Your task to perform on an android device: toggle sleep mode Image 0: 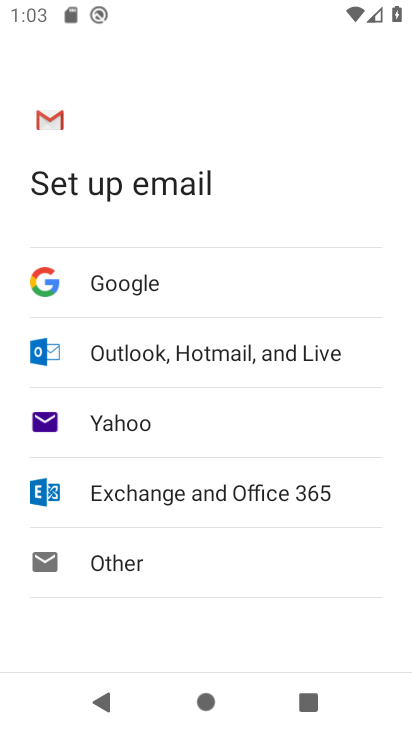
Step 0: press home button
Your task to perform on an android device: toggle sleep mode Image 1: 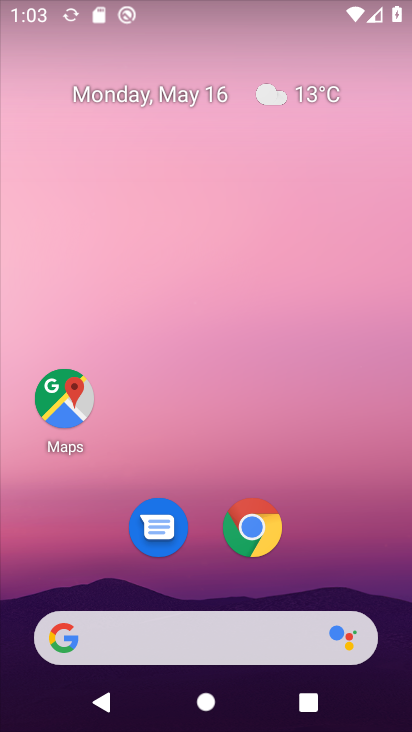
Step 1: drag from (331, 515) to (327, 113)
Your task to perform on an android device: toggle sleep mode Image 2: 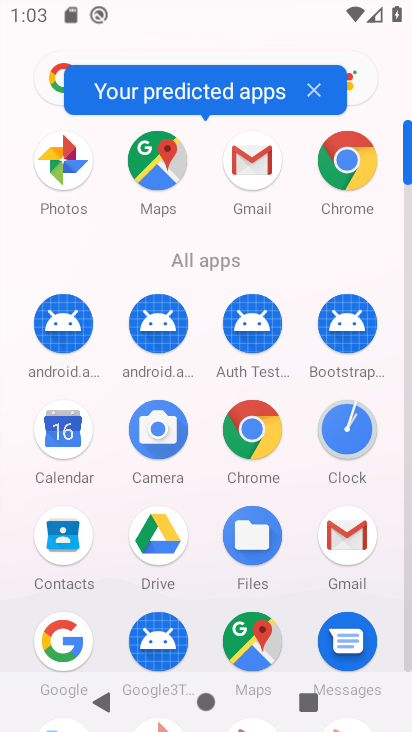
Step 2: drag from (205, 389) to (207, 83)
Your task to perform on an android device: toggle sleep mode Image 3: 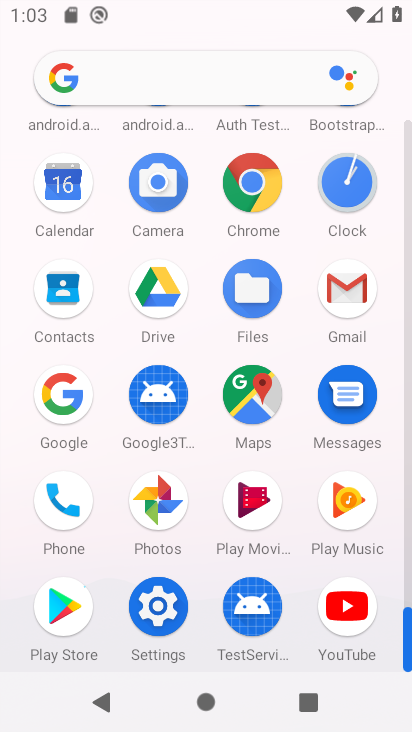
Step 3: click (146, 612)
Your task to perform on an android device: toggle sleep mode Image 4: 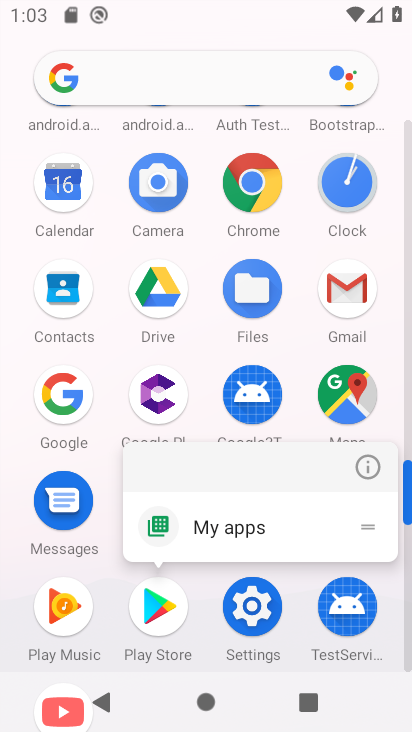
Step 4: click (252, 601)
Your task to perform on an android device: toggle sleep mode Image 5: 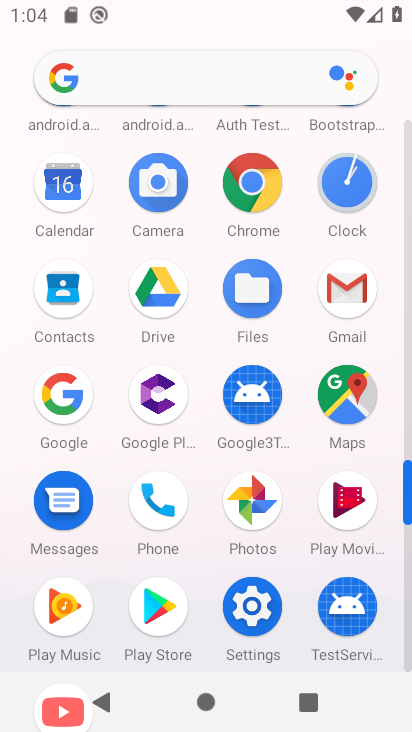
Step 5: click (249, 599)
Your task to perform on an android device: toggle sleep mode Image 6: 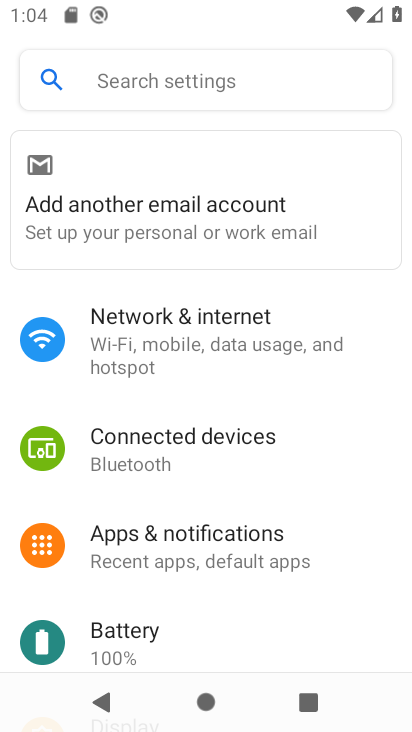
Step 6: drag from (241, 563) to (225, 248)
Your task to perform on an android device: toggle sleep mode Image 7: 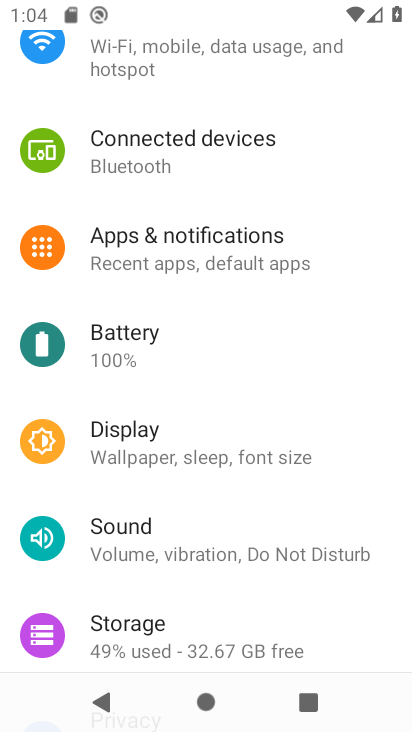
Step 7: click (223, 455)
Your task to perform on an android device: toggle sleep mode Image 8: 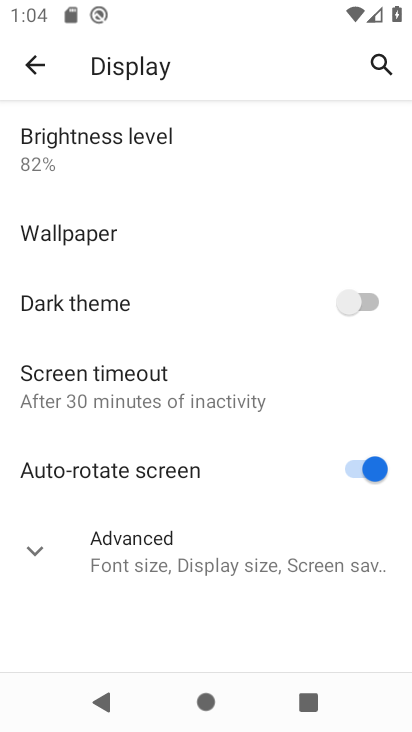
Step 8: click (167, 401)
Your task to perform on an android device: toggle sleep mode Image 9: 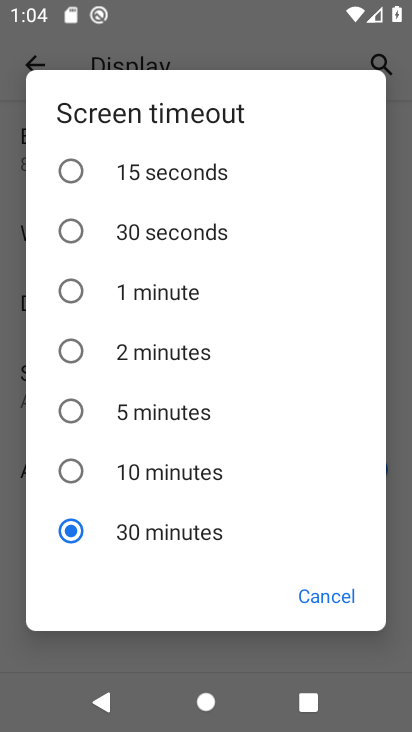
Step 9: click (155, 346)
Your task to perform on an android device: toggle sleep mode Image 10: 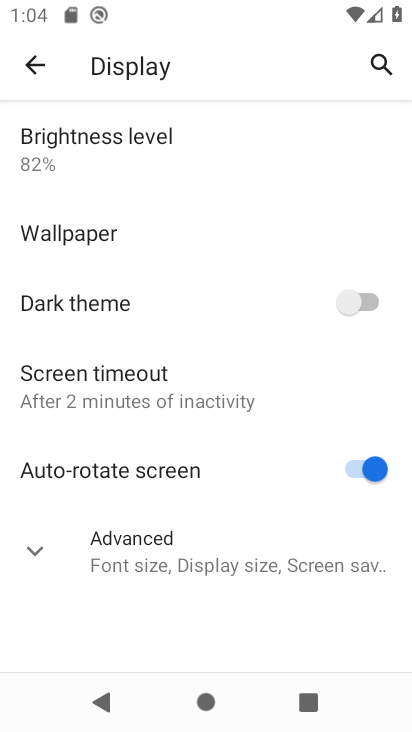
Step 10: task complete